Your task to perform on an android device: uninstall "Gmail" Image 0: 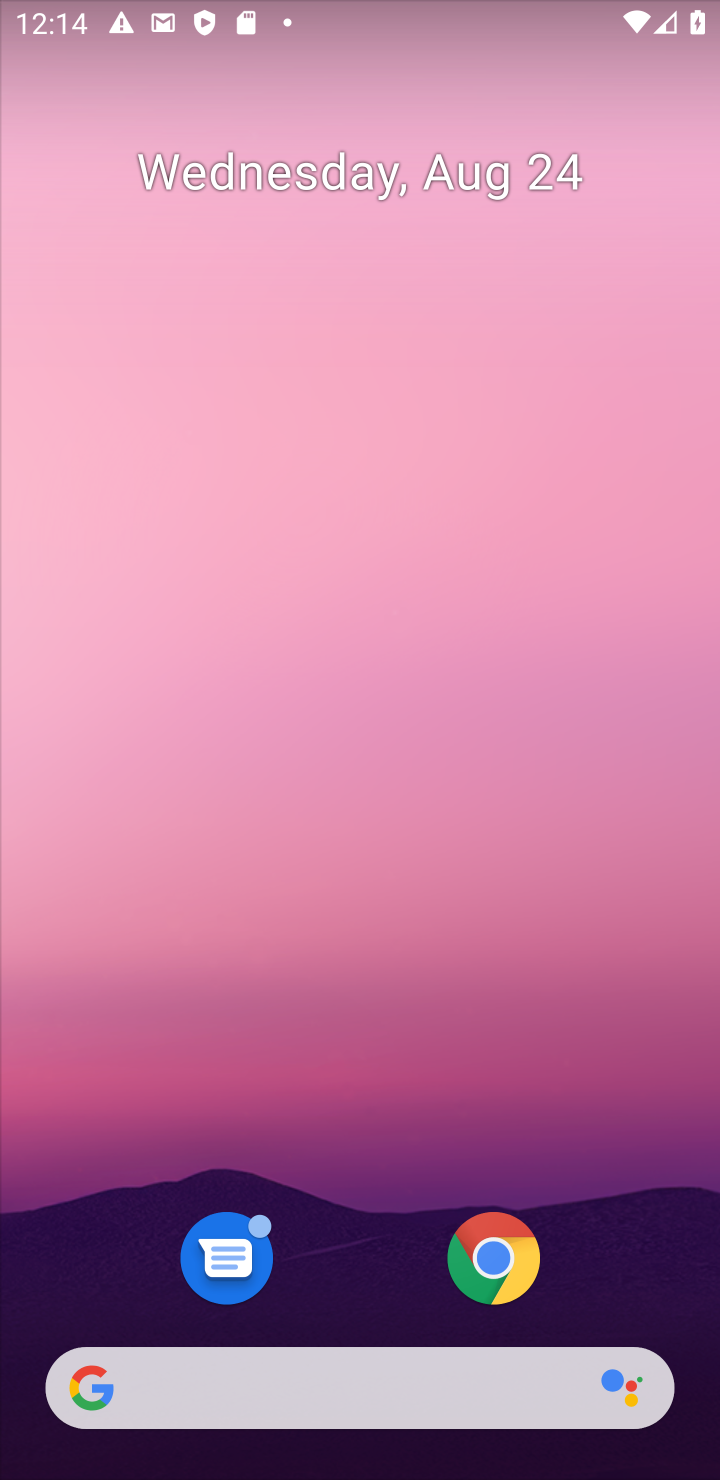
Step 0: drag from (366, 1078) to (21, 357)
Your task to perform on an android device: uninstall "Gmail" Image 1: 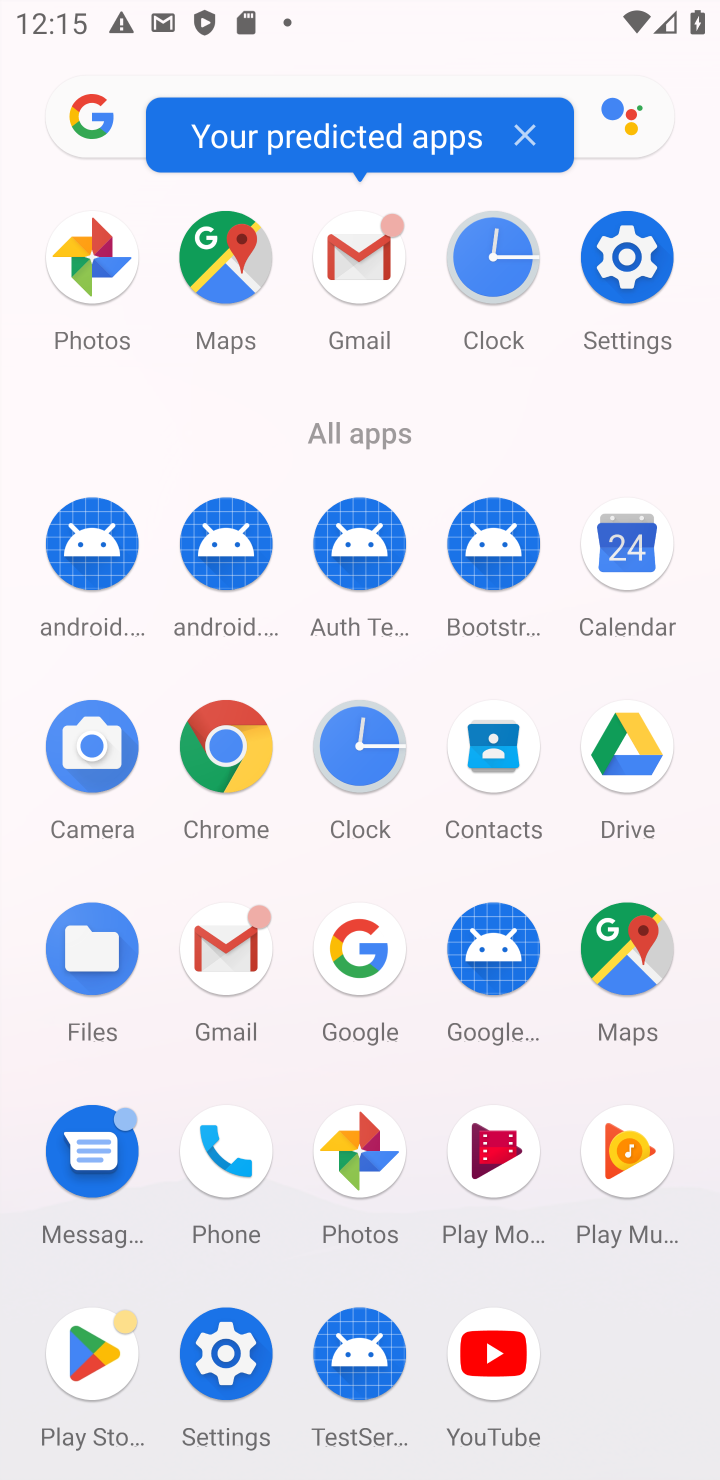
Step 1: click (363, 270)
Your task to perform on an android device: uninstall "Gmail" Image 2: 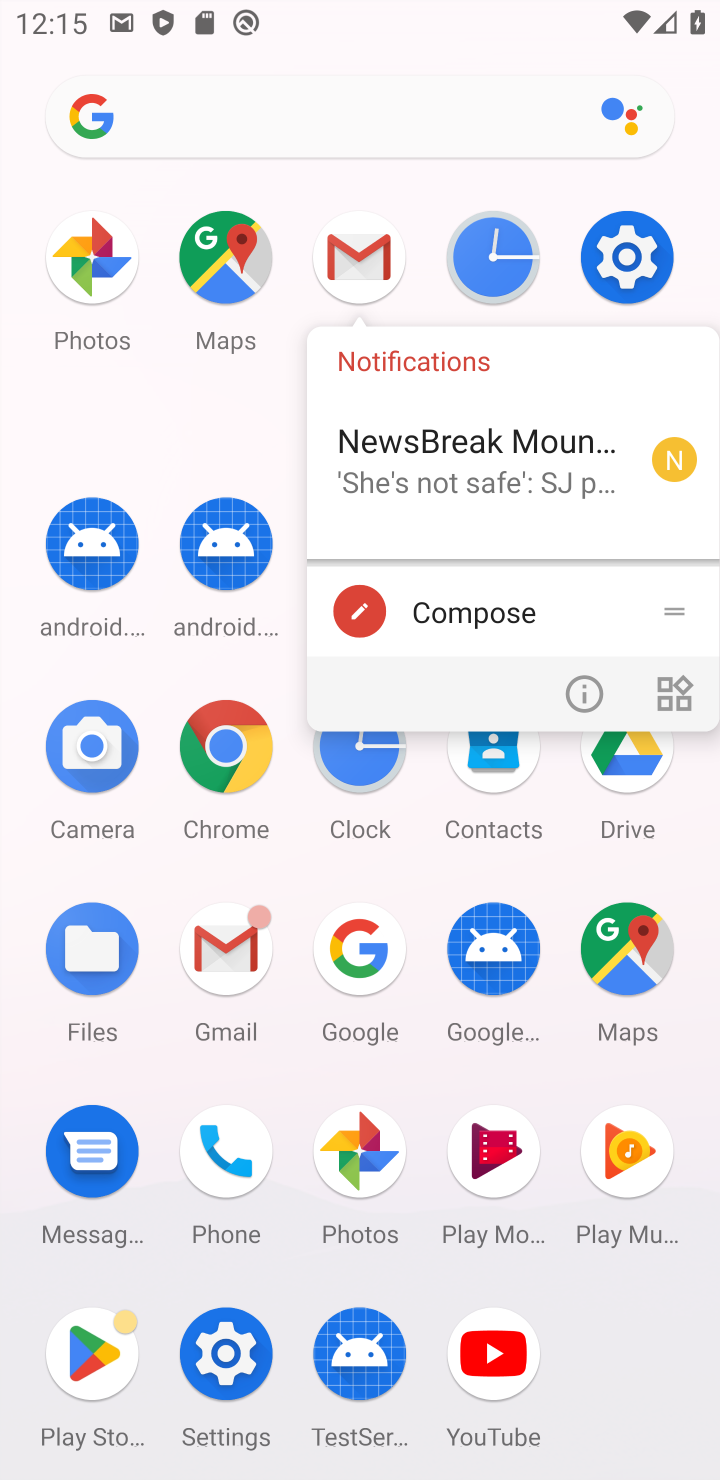
Step 2: click (369, 277)
Your task to perform on an android device: uninstall "Gmail" Image 3: 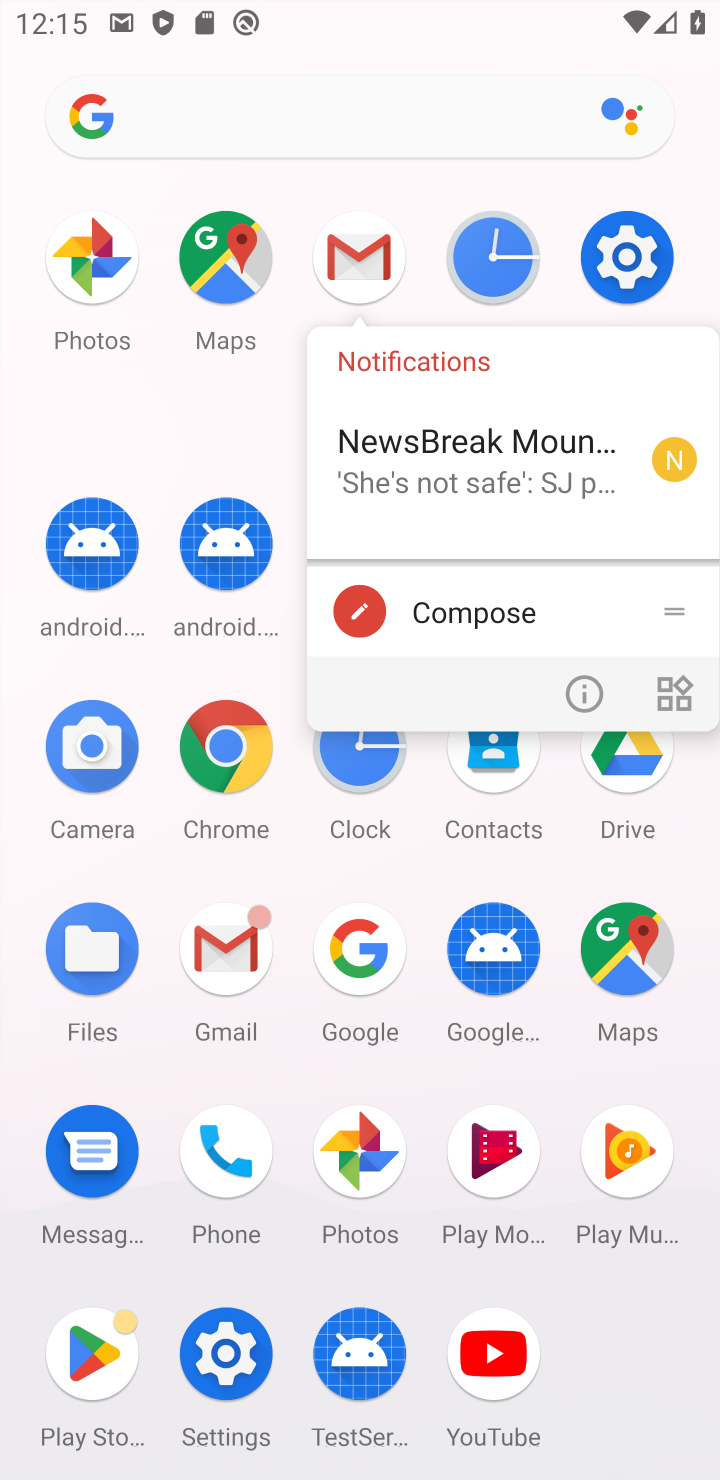
Step 3: click (107, 1344)
Your task to perform on an android device: uninstall "Gmail" Image 4: 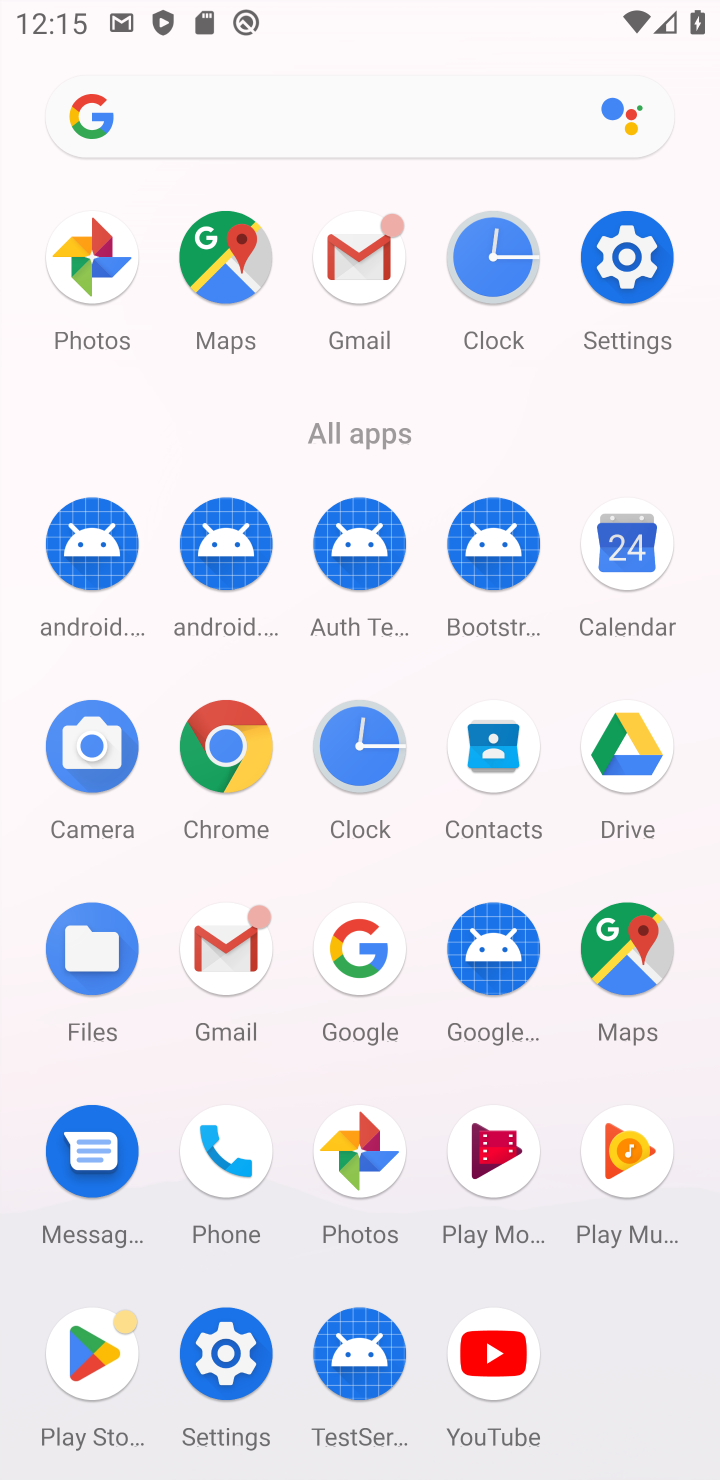
Step 4: click (91, 1361)
Your task to perform on an android device: uninstall "Gmail" Image 5: 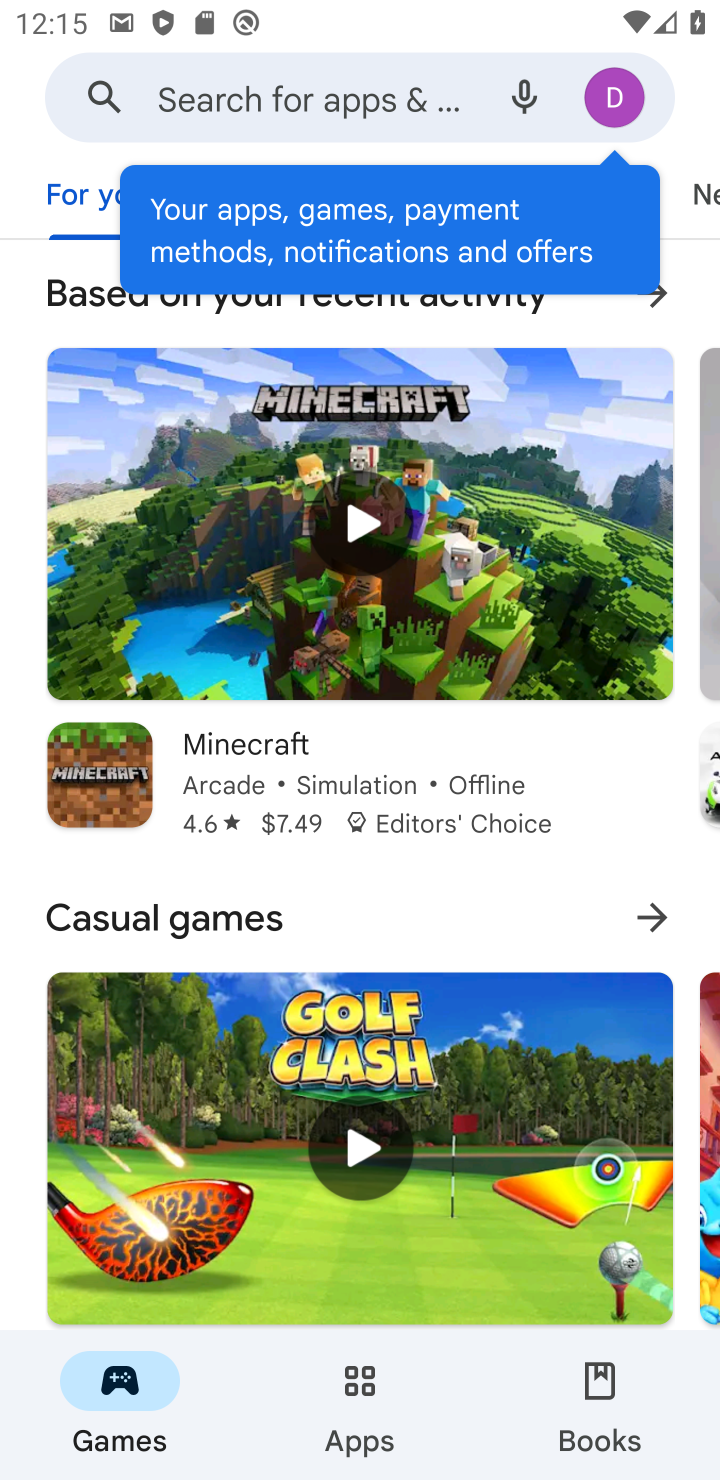
Step 5: click (313, 86)
Your task to perform on an android device: uninstall "Gmail" Image 6: 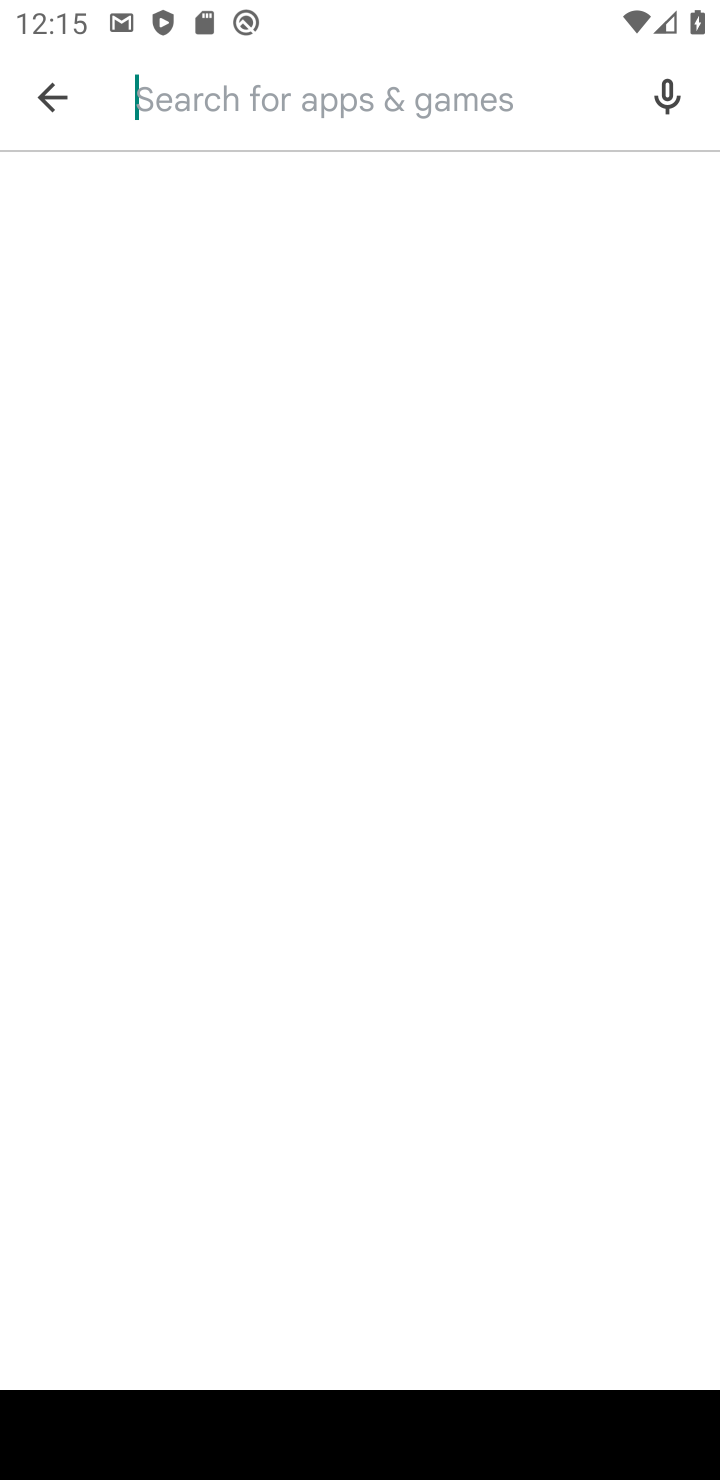
Step 6: type "gmail"
Your task to perform on an android device: uninstall "Gmail" Image 7: 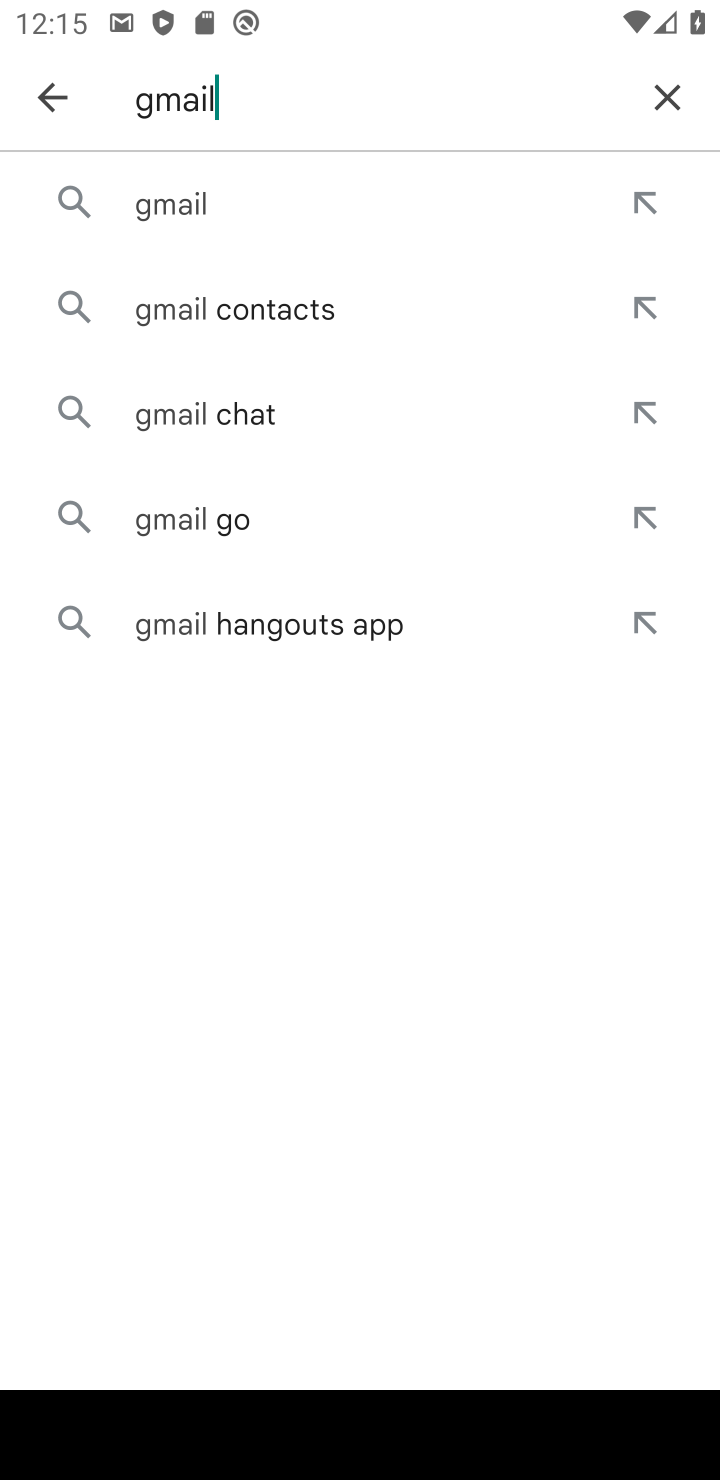
Step 7: click (133, 234)
Your task to perform on an android device: uninstall "Gmail" Image 8: 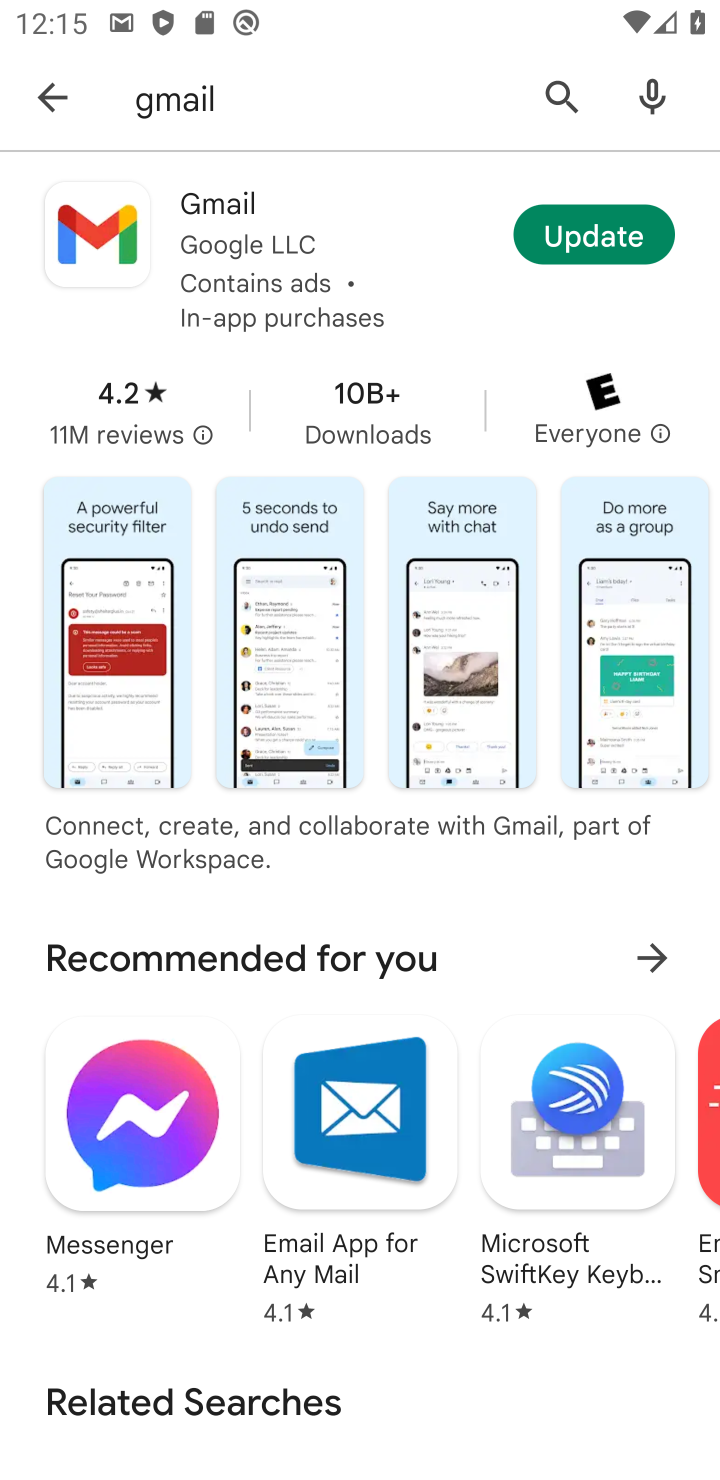
Step 8: click (145, 220)
Your task to perform on an android device: uninstall "Gmail" Image 9: 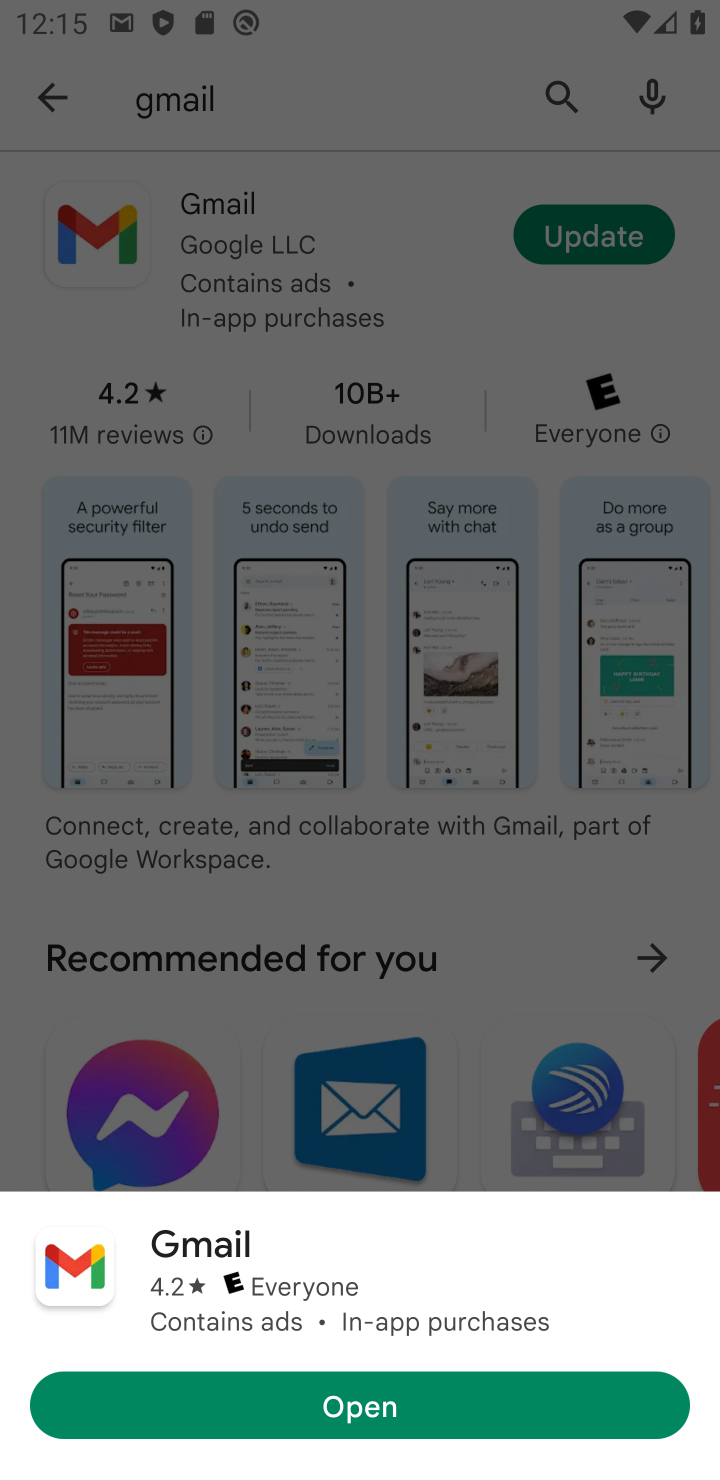
Step 9: click (314, 269)
Your task to perform on an android device: uninstall "Gmail" Image 10: 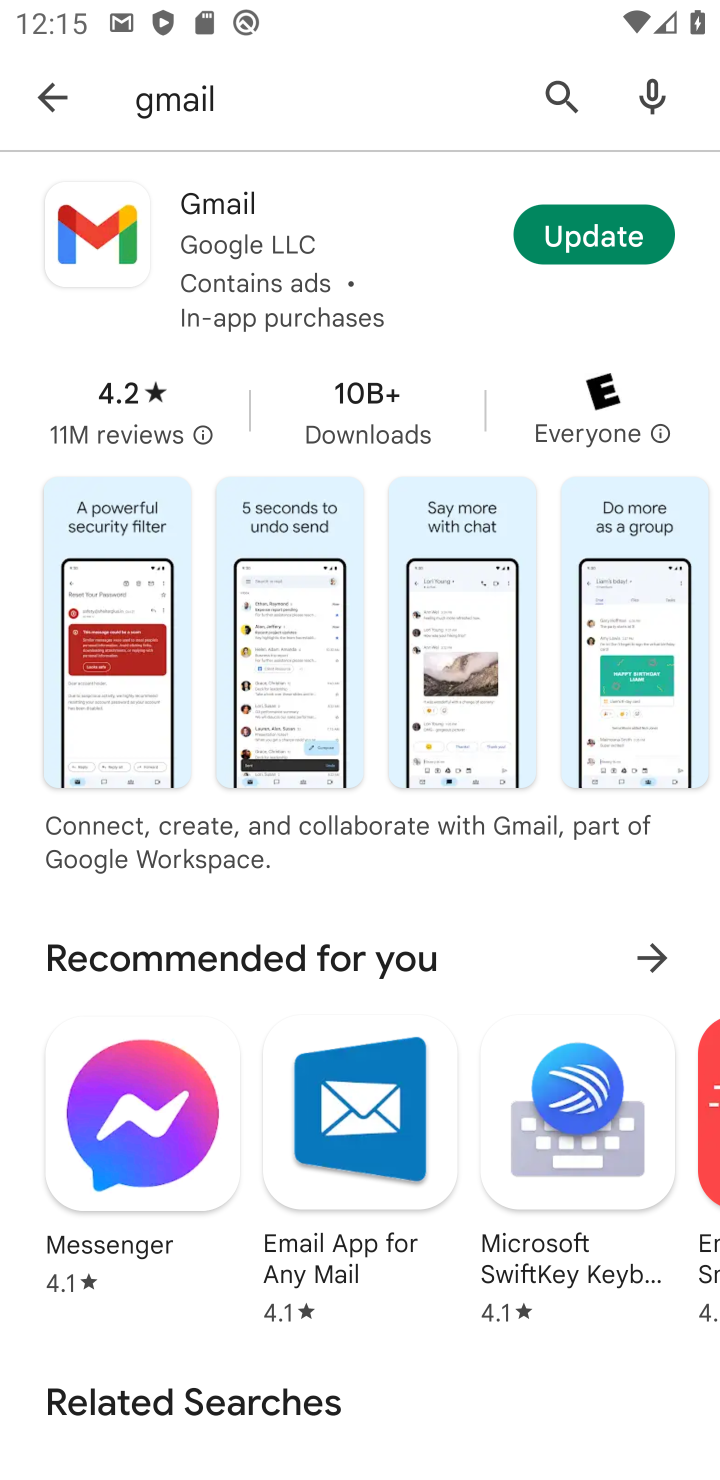
Step 10: click (307, 232)
Your task to perform on an android device: uninstall "Gmail" Image 11: 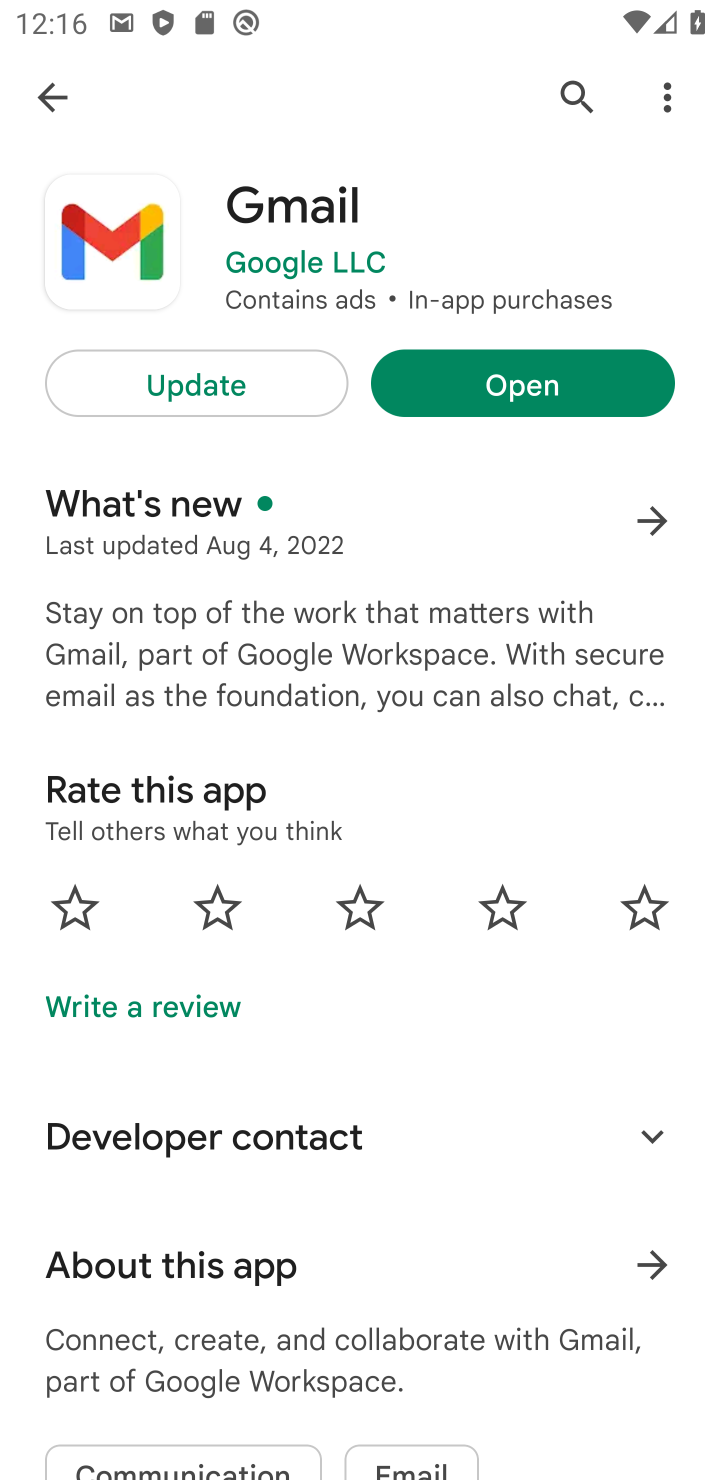
Step 11: task complete